Your task to perform on an android device: check storage Image 0: 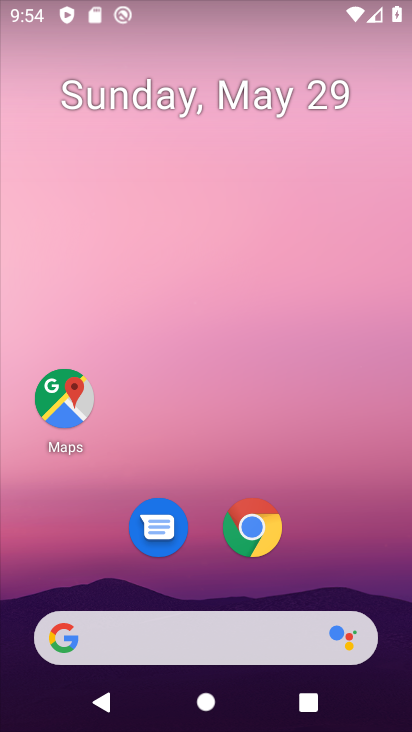
Step 0: drag from (350, 552) to (282, 141)
Your task to perform on an android device: check storage Image 1: 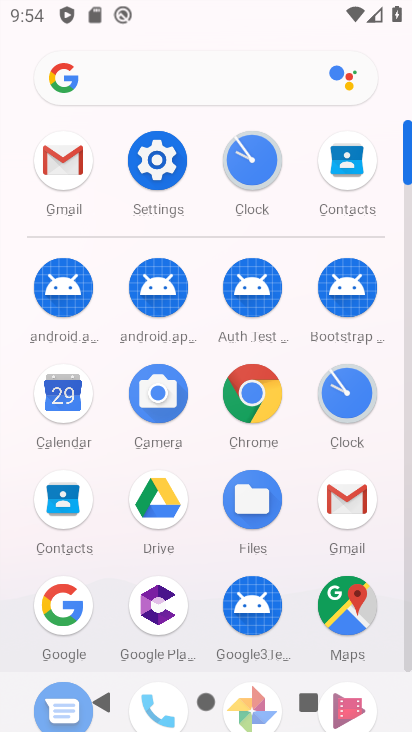
Step 1: click (154, 152)
Your task to perform on an android device: check storage Image 2: 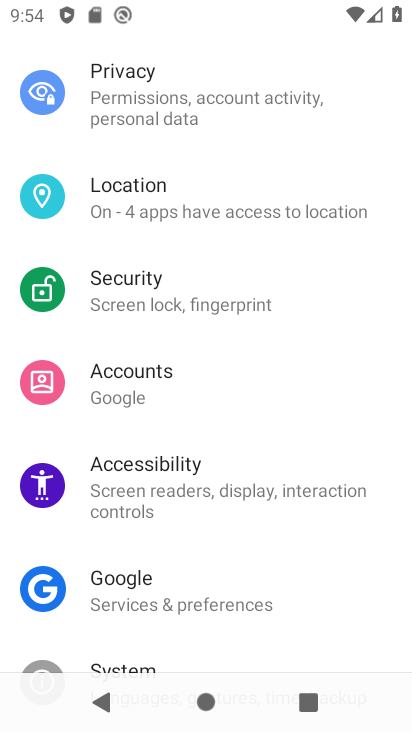
Step 2: drag from (254, 497) to (264, 642)
Your task to perform on an android device: check storage Image 3: 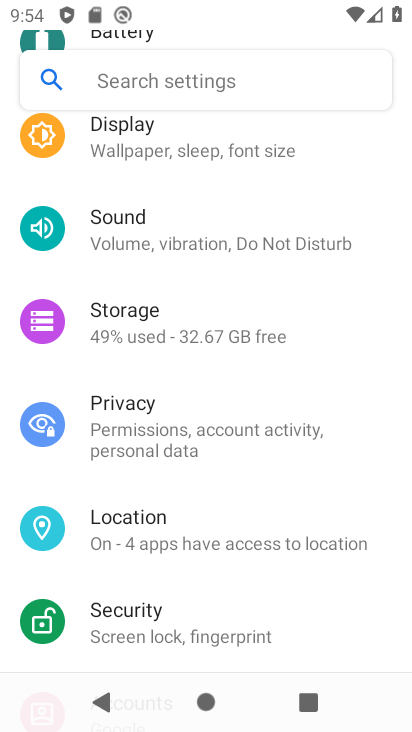
Step 3: drag from (247, 261) to (314, 593)
Your task to perform on an android device: check storage Image 4: 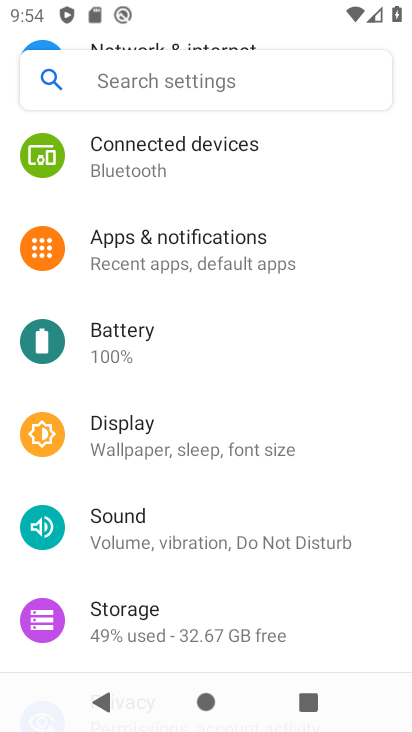
Step 4: drag from (240, 212) to (318, 290)
Your task to perform on an android device: check storage Image 5: 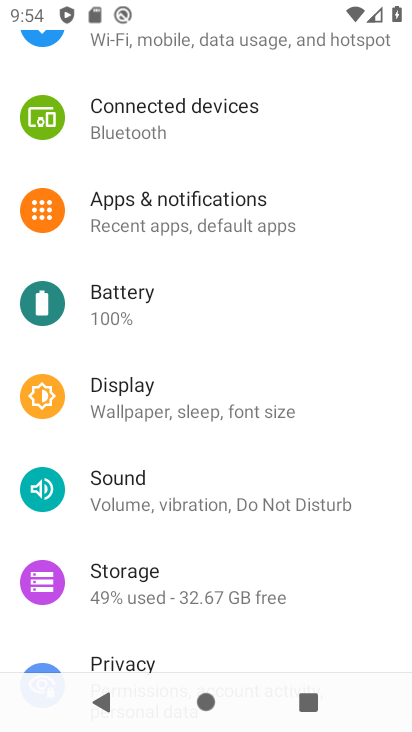
Step 5: click (319, 289)
Your task to perform on an android device: check storage Image 6: 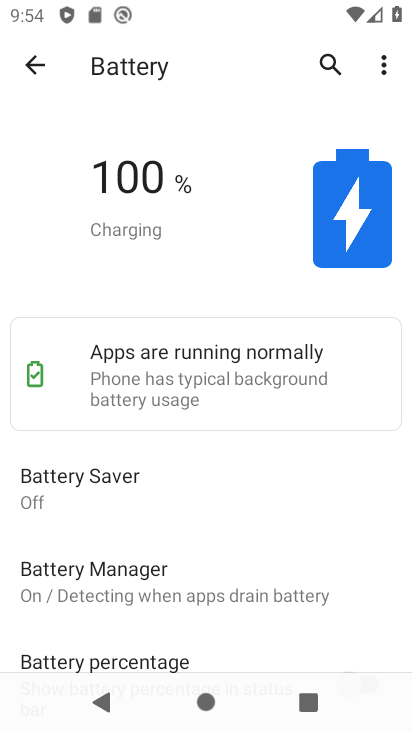
Step 6: click (25, 59)
Your task to perform on an android device: check storage Image 7: 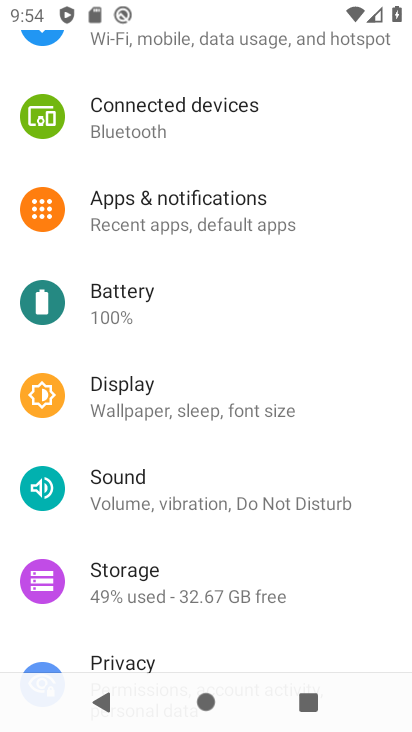
Step 7: drag from (250, 493) to (271, 300)
Your task to perform on an android device: check storage Image 8: 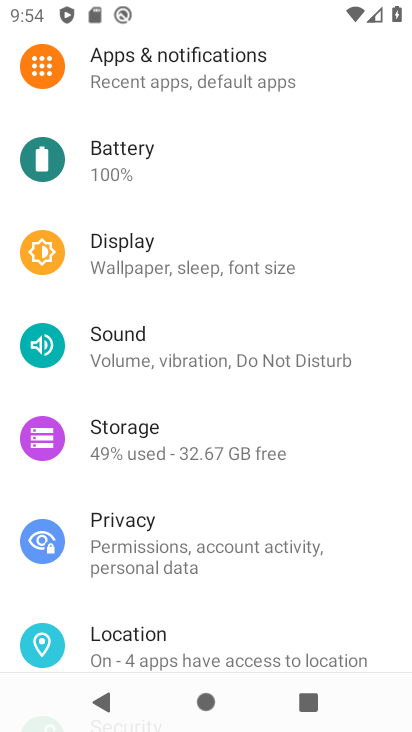
Step 8: click (147, 431)
Your task to perform on an android device: check storage Image 9: 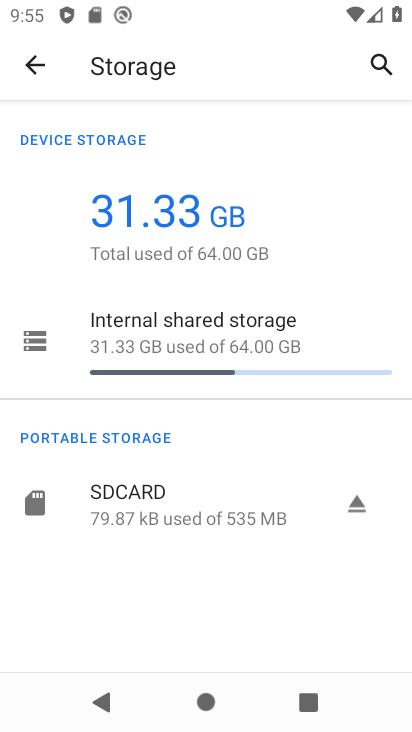
Step 9: task complete